Your task to perform on an android device: Open the stopwatch Image 0: 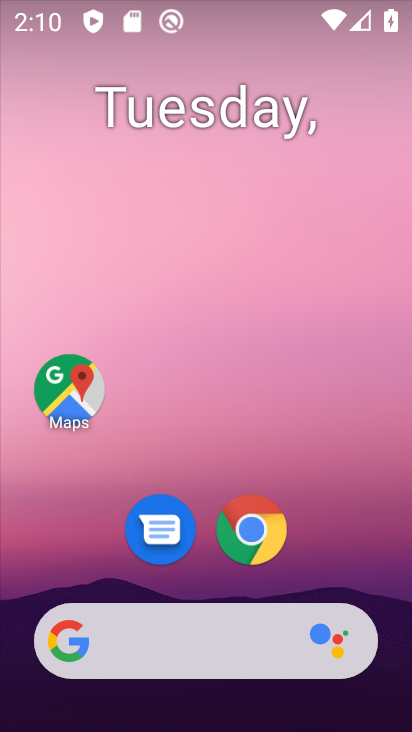
Step 0: drag from (387, 612) to (239, 178)
Your task to perform on an android device: Open the stopwatch Image 1: 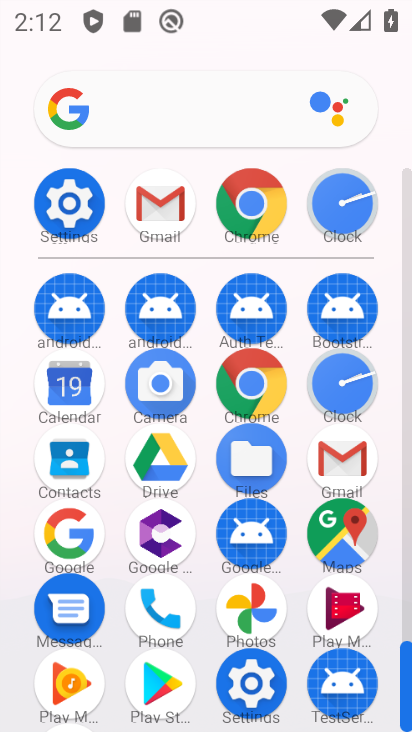
Step 1: click (362, 389)
Your task to perform on an android device: Open the stopwatch Image 2: 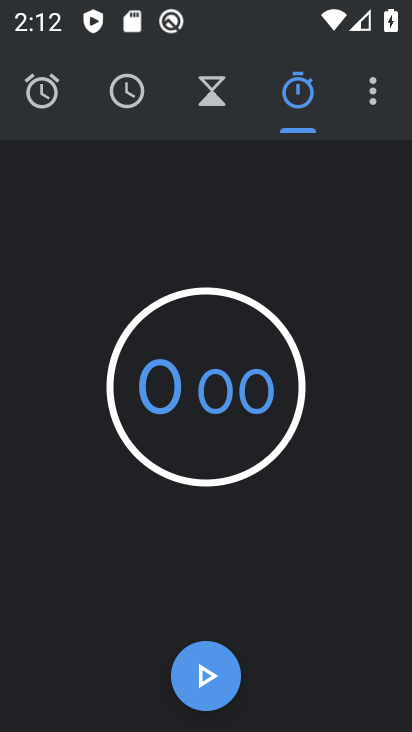
Step 2: task complete